Your task to perform on an android device: set the timer Image 0: 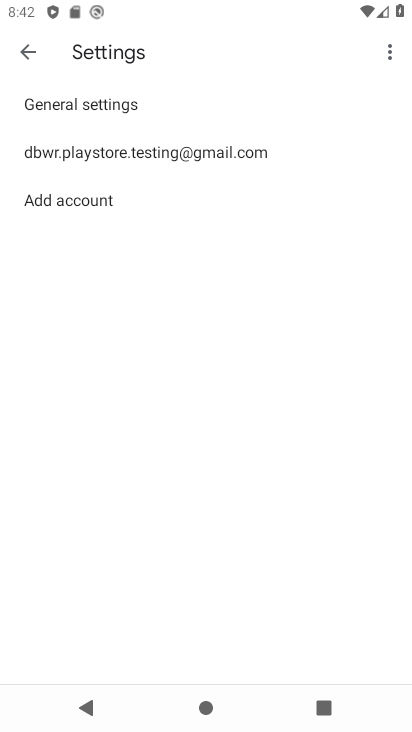
Step 0: press back button
Your task to perform on an android device: set the timer Image 1: 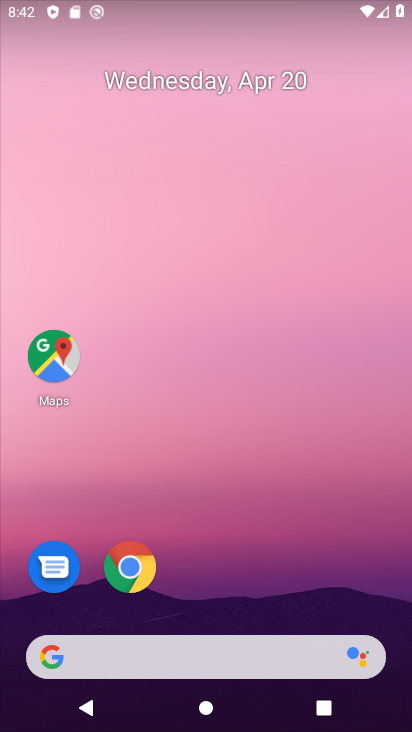
Step 1: drag from (181, 609) to (319, 88)
Your task to perform on an android device: set the timer Image 2: 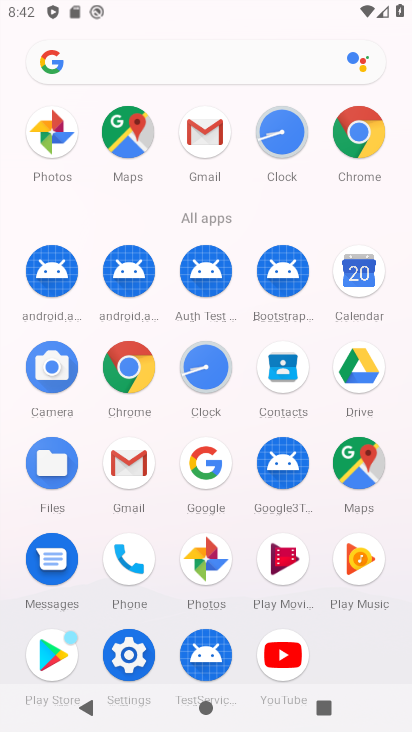
Step 2: click (201, 369)
Your task to perform on an android device: set the timer Image 3: 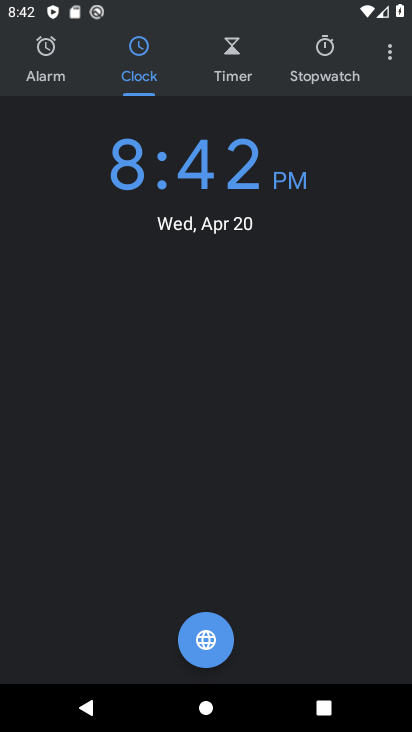
Step 3: click (242, 54)
Your task to perform on an android device: set the timer Image 4: 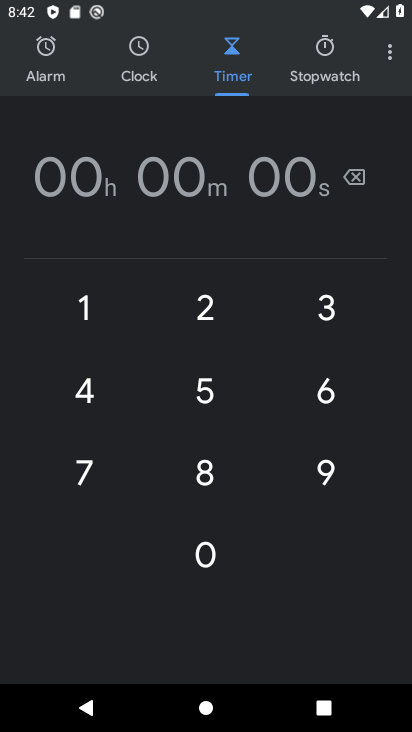
Step 4: click (233, 311)
Your task to perform on an android device: set the timer Image 5: 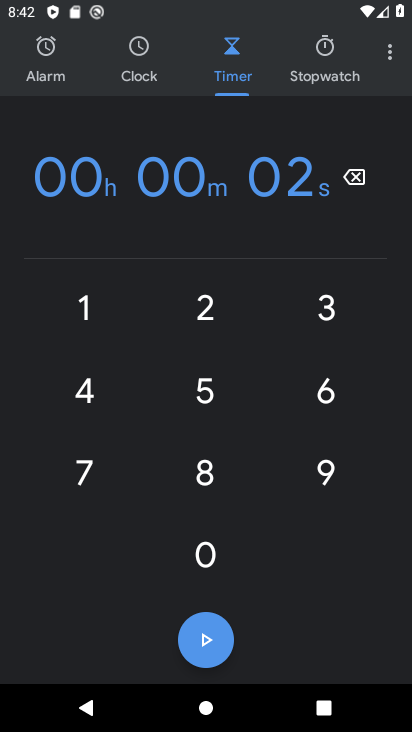
Step 5: click (202, 543)
Your task to perform on an android device: set the timer Image 6: 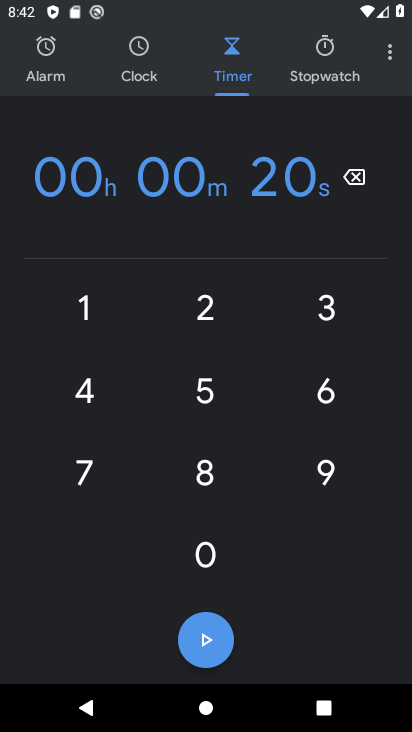
Step 6: click (205, 630)
Your task to perform on an android device: set the timer Image 7: 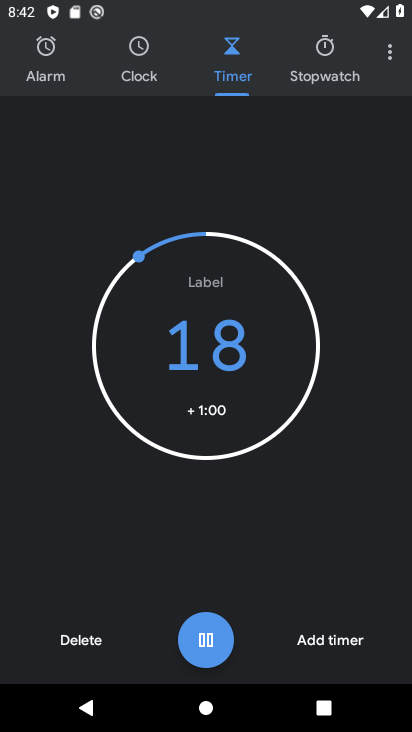
Step 7: task complete